Your task to perform on an android device: see creations saved in the google photos Image 0: 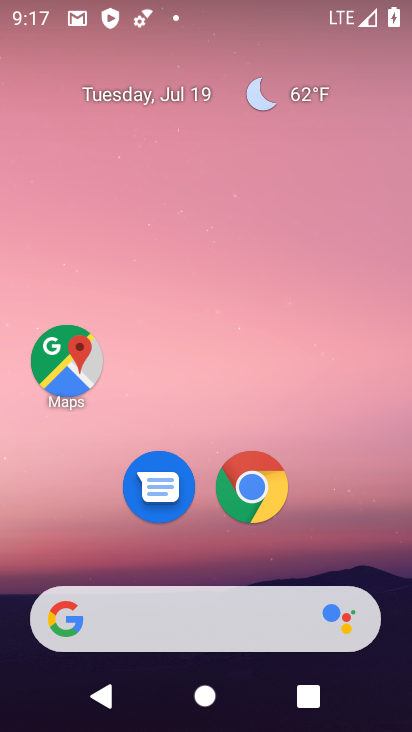
Step 0: drag from (137, 548) to (288, 8)
Your task to perform on an android device: see creations saved in the google photos Image 1: 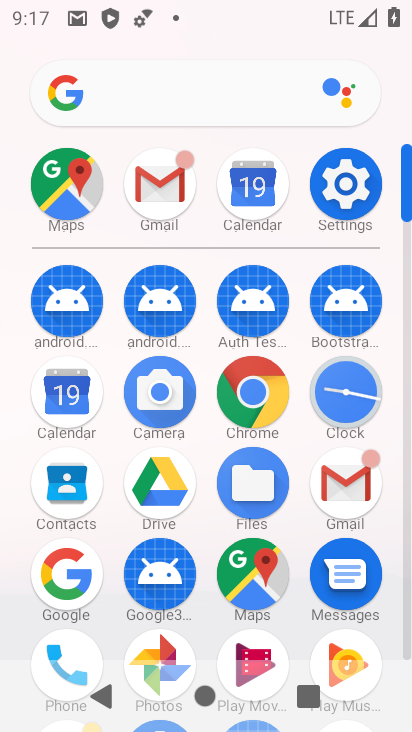
Step 1: click (170, 650)
Your task to perform on an android device: see creations saved in the google photos Image 2: 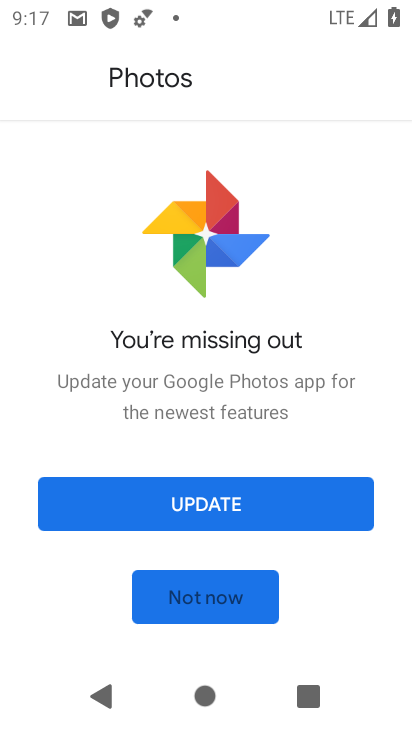
Step 2: click (181, 596)
Your task to perform on an android device: see creations saved in the google photos Image 3: 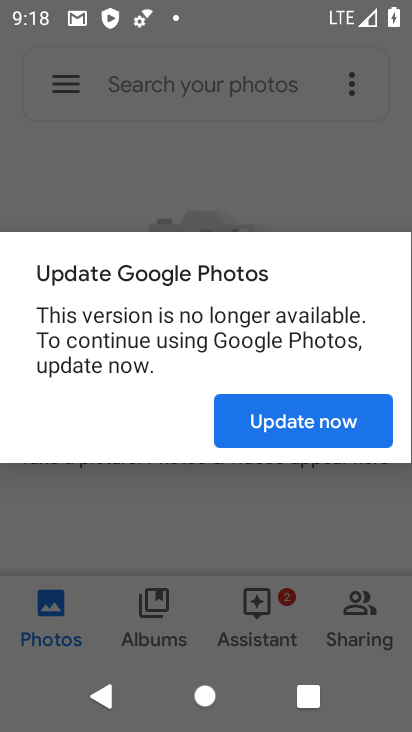
Step 3: click (298, 421)
Your task to perform on an android device: see creations saved in the google photos Image 4: 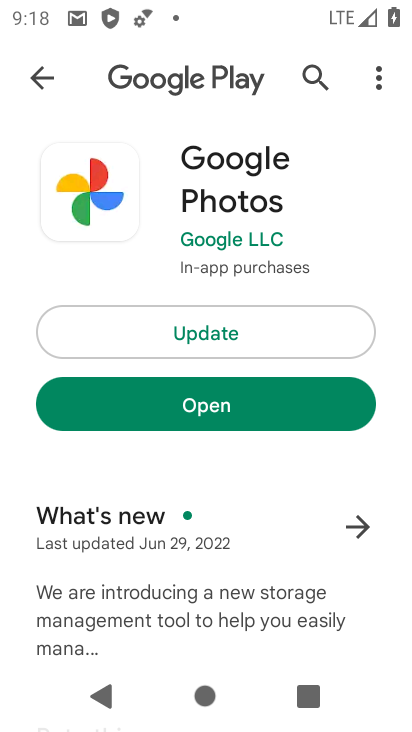
Step 4: click (46, 71)
Your task to perform on an android device: see creations saved in the google photos Image 5: 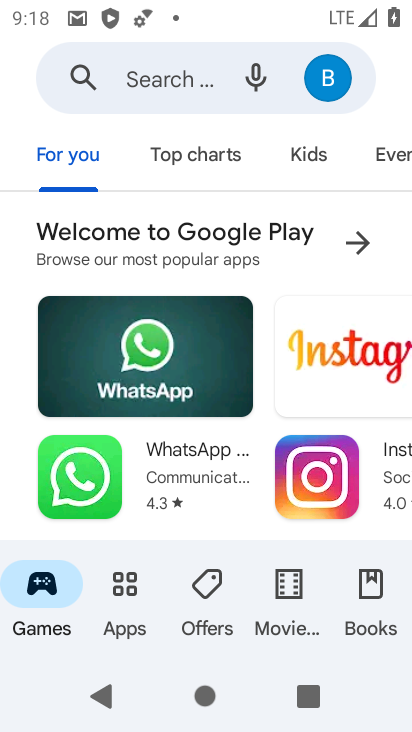
Step 5: press back button
Your task to perform on an android device: see creations saved in the google photos Image 6: 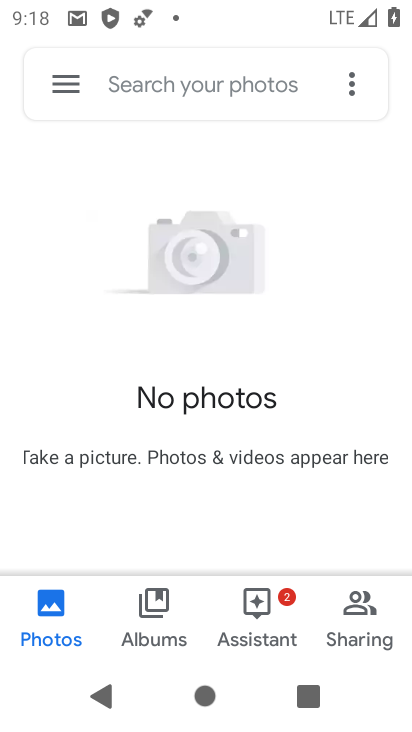
Step 6: click (60, 84)
Your task to perform on an android device: see creations saved in the google photos Image 7: 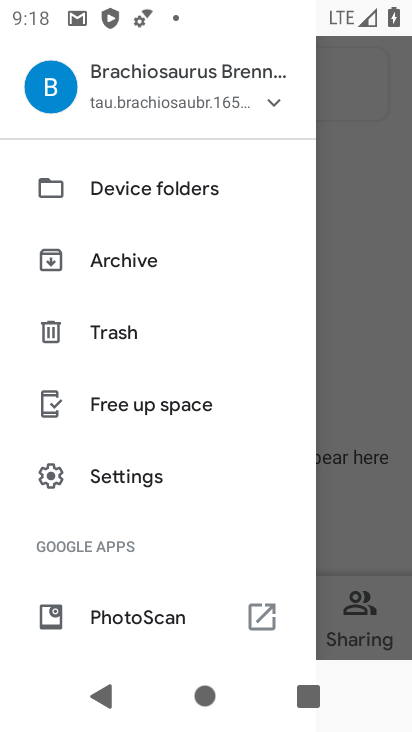
Step 7: click (113, 268)
Your task to perform on an android device: see creations saved in the google photos Image 8: 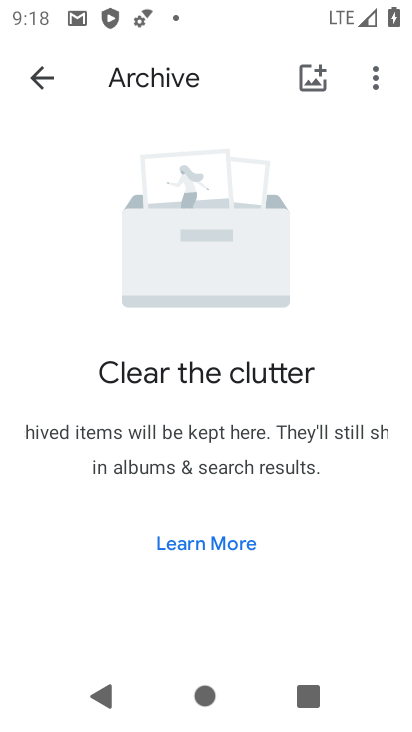
Step 8: task complete